Your task to perform on an android device: Open privacy settings Image 0: 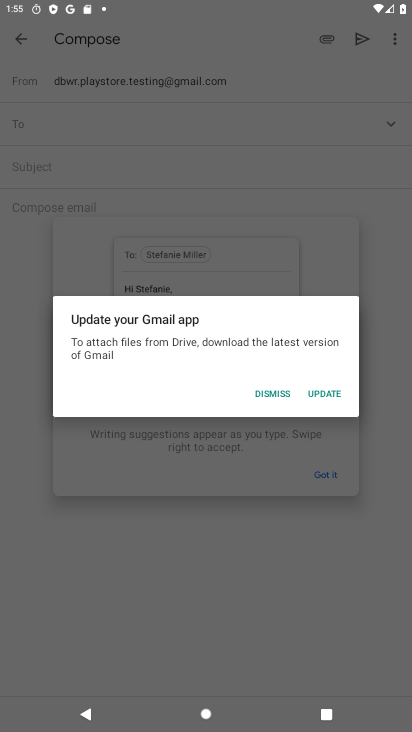
Step 0: press home button
Your task to perform on an android device: Open privacy settings Image 1: 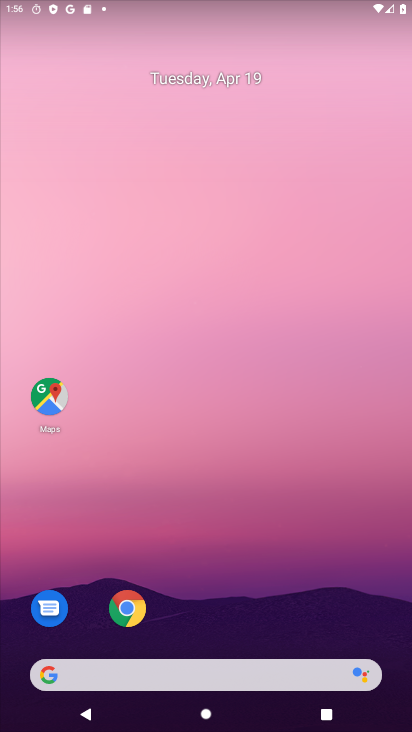
Step 1: drag from (297, 272) to (301, 67)
Your task to perform on an android device: Open privacy settings Image 2: 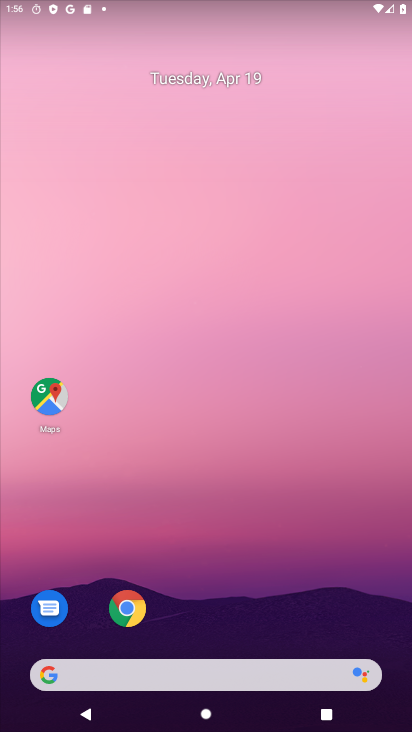
Step 2: drag from (277, 627) to (273, 161)
Your task to perform on an android device: Open privacy settings Image 3: 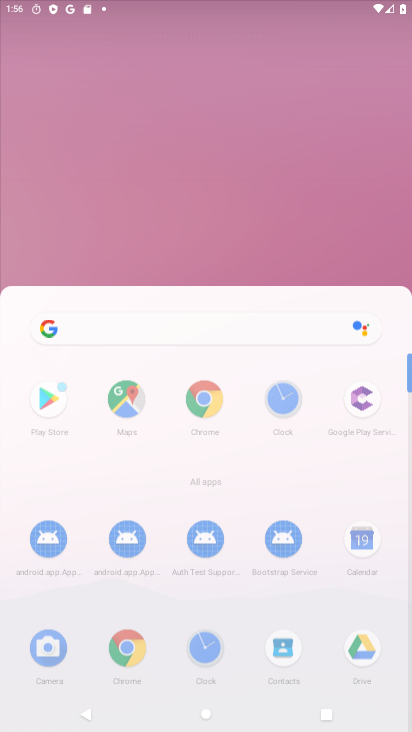
Step 3: click (282, 137)
Your task to perform on an android device: Open privacy settings Image 4: 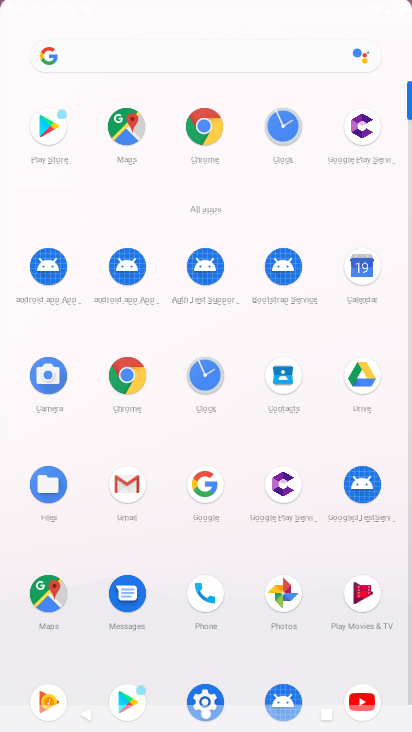
Step 4: drag from (282, 137) to (271, 91)
Your task to perform on an android device: Open privacy settings Image 5: 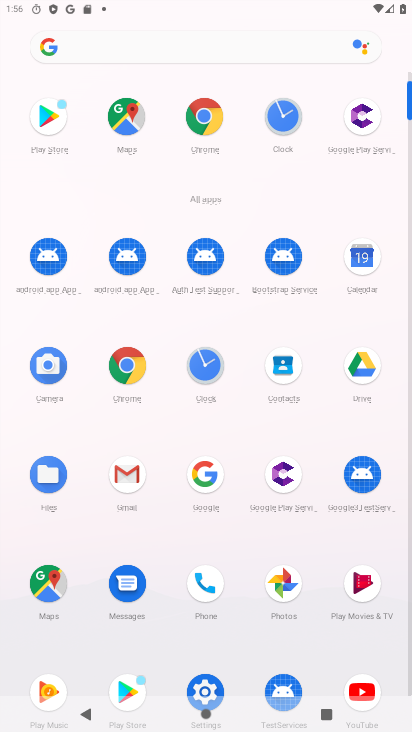
Step 5: click (206, 682)
Your task to perform on an android device: Open privacy settings Image 6: 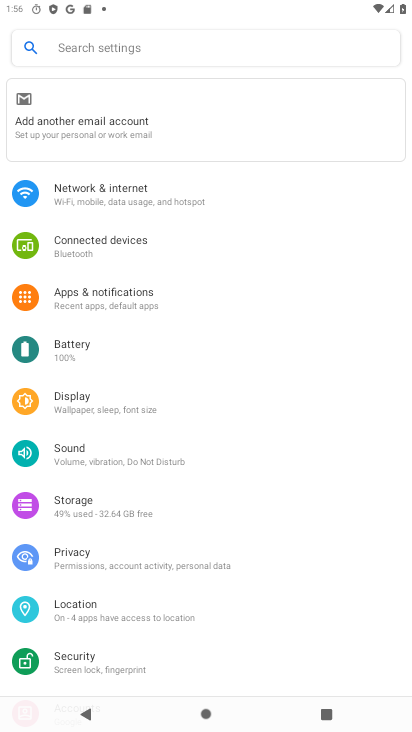
Step 6: click (71, 558)
Your task to perform on an android device: Open privacy settings Image 7: 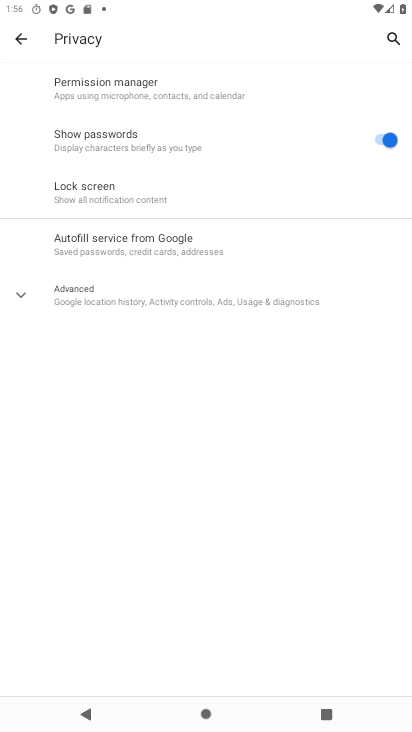
Step 7: task complete